Your task to perform on an android device: delete the emails in spam in the gmail app Image 0: 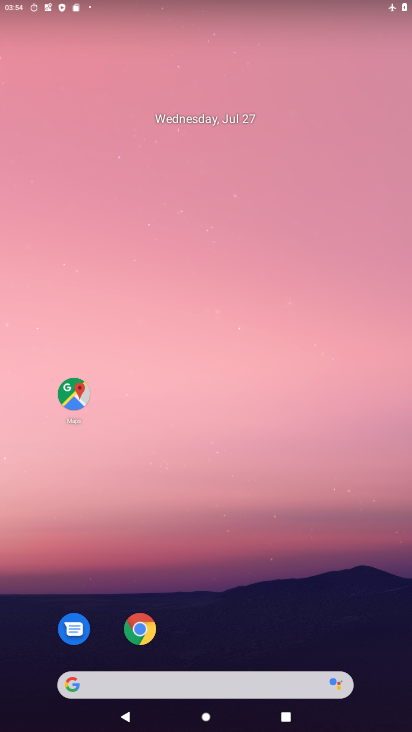
Step 0: drag from (244, 531) to (261, 4)
Your task to perform on an android device: delete the emails in spam in the gmail app Image 1: 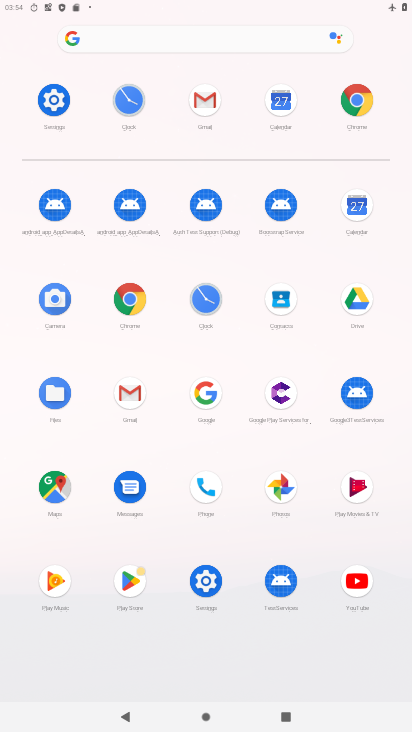
Step 1: click (214, 108)
Your task to perform on an android device: delete the emails in spam in the gmail app Image 2: 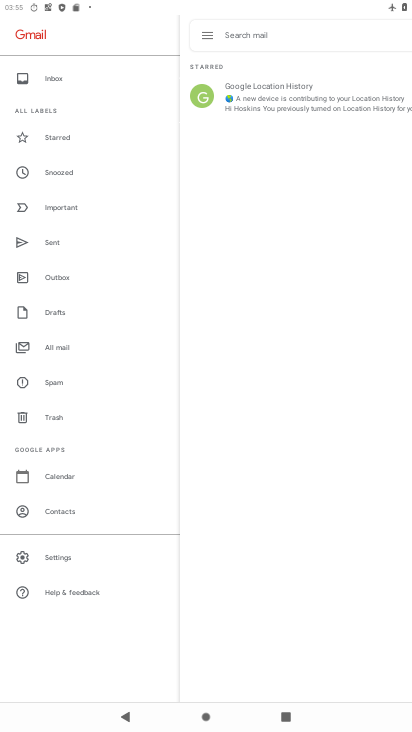
Step 2: click (53, 388)
Your task to perform on an android device: delete the emails in spam in the gmail app Image 3: 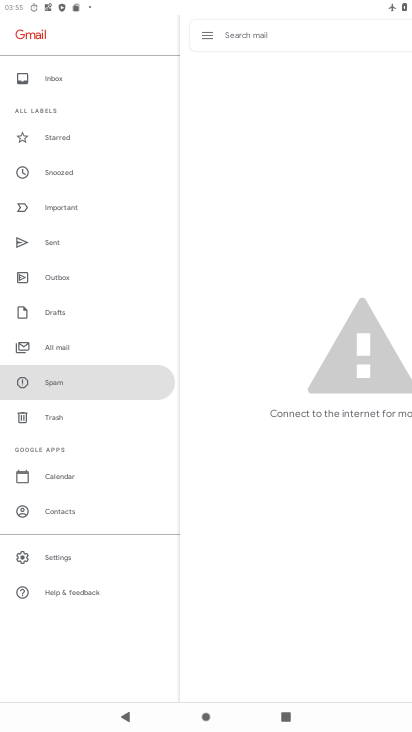
Step 3: task complete